Your task to perform on an android device: Open the map Image 0: 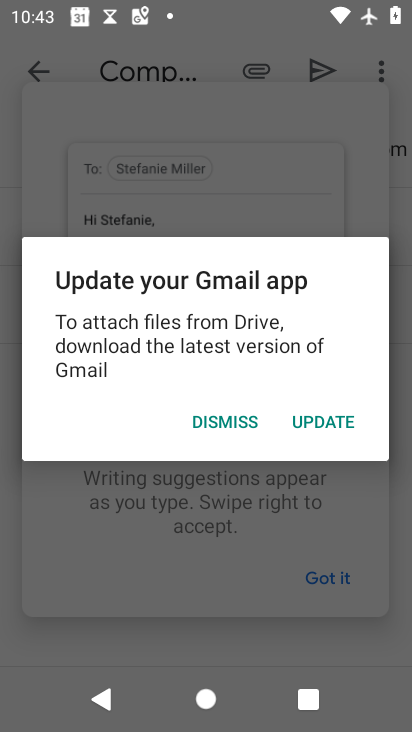
Step 0: press home button
Your task to perform on an android device: Open the map Image 1: 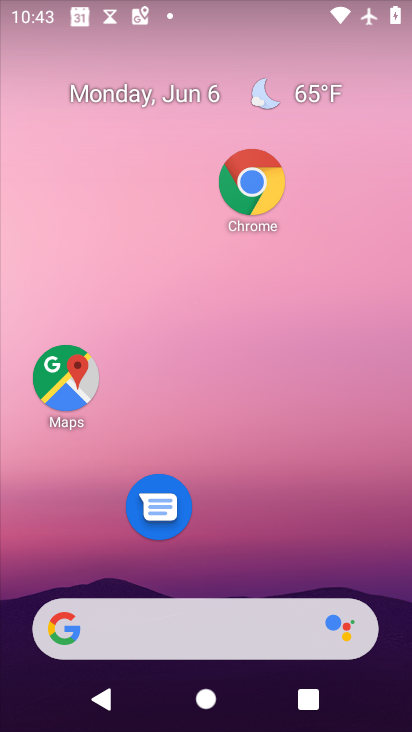
Step 1: click (72, 378)
Your task to perform on an android device: Open the map Image 2: 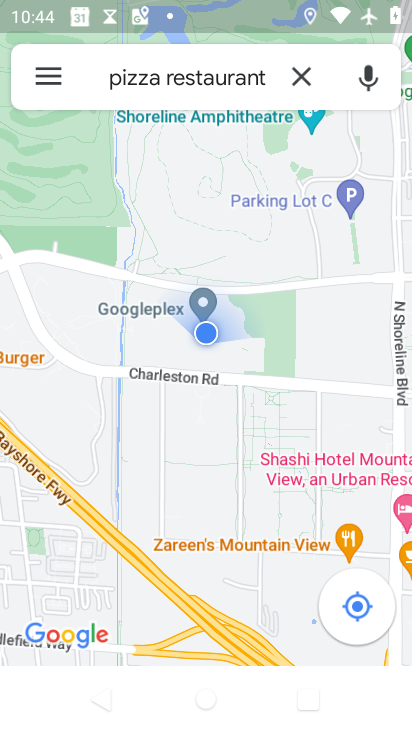
Step 2: task complete